Your task to perform on an android device: toggle javascript in the chrome app Image 0: 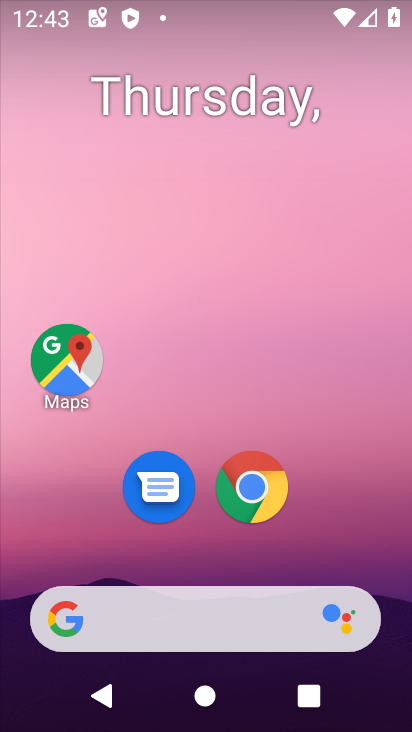
Step 0: drag from (357, 521) to (361, 2)
Your task to perform on an android device: toggle javascript in the chrome app Image 1: 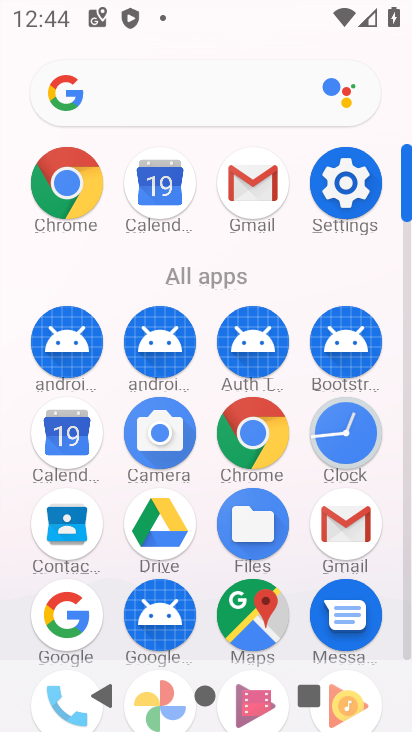
Step 1: click (78, 177)
Your task to perform on an android device: toggle javascript in the chrome app Image 2: 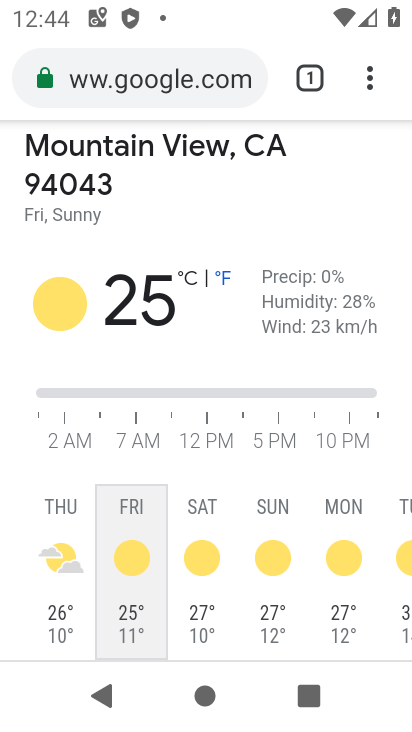
Step 2: click (371, 70)
Your task to perform on an android device: toggle javascript in the chrome app Image 3: 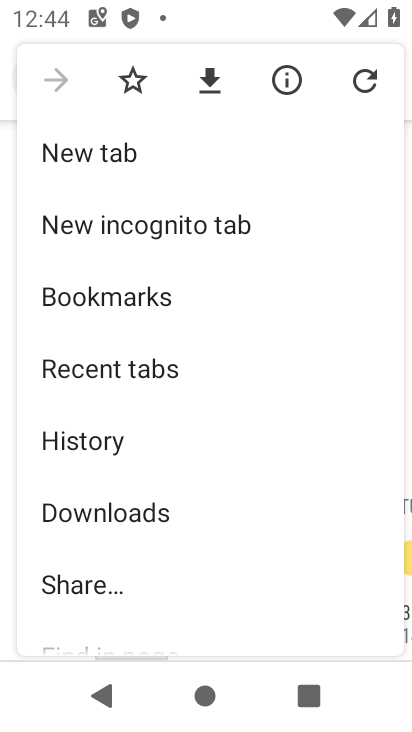
Step 3: drag from (339, 616) to (321, 226)
Your task to perform on an android device: toggle javascript in the chrome app Image 4: 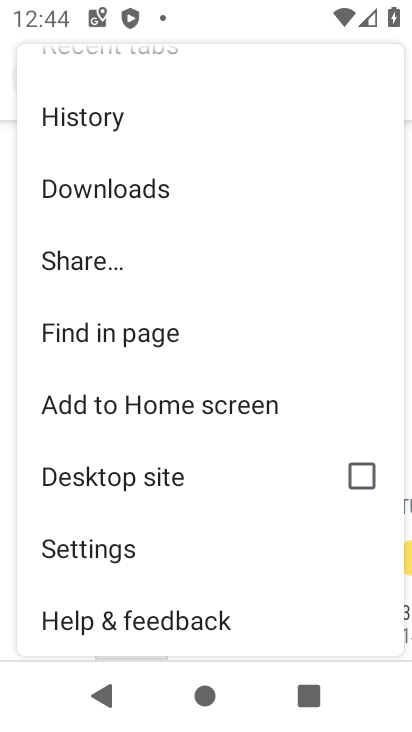
Step 4: click (259, 554)
Your task to perform on an android device: toggle javascript in the chrome app Image 5: 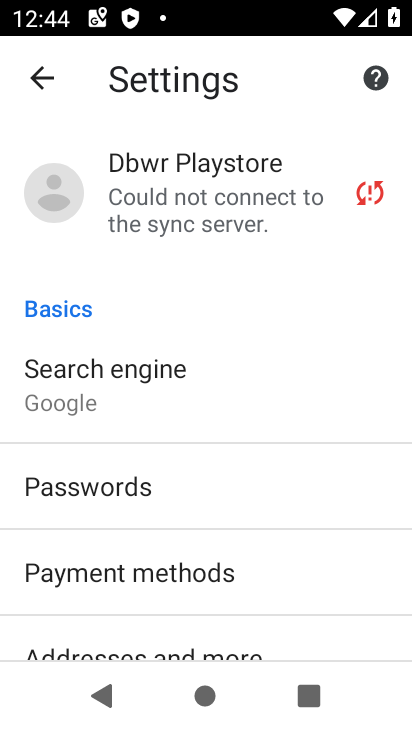
Step 5: drag from (259, 554) to (264, 78)
Your task to perform on an android device: toggle javascript in the chrome app Image 6: 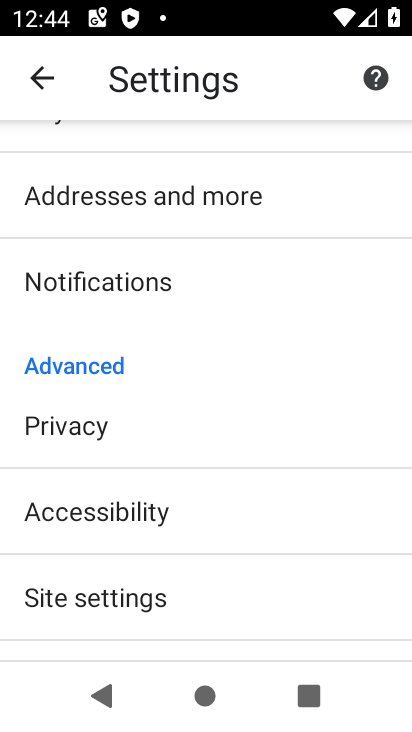
Step 6: click (242, 597)
Your task to perform on an android device: toggle javascript in the chrome app Image 7: 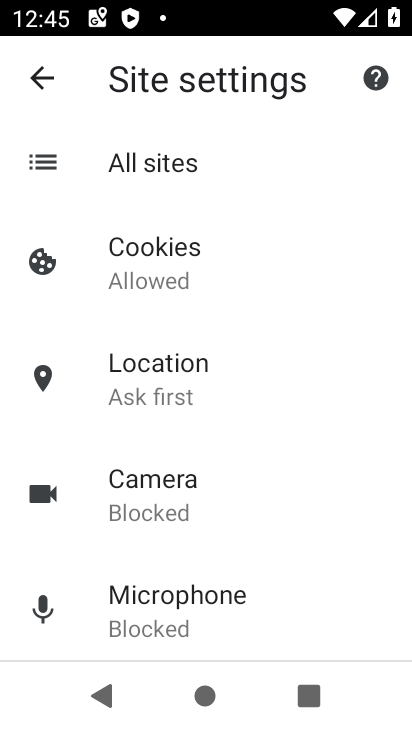
Step 7: drag from (246, 608) to (265, 169)
Your task to perform on an android device: toggle javascript in the chrome app Image 8: 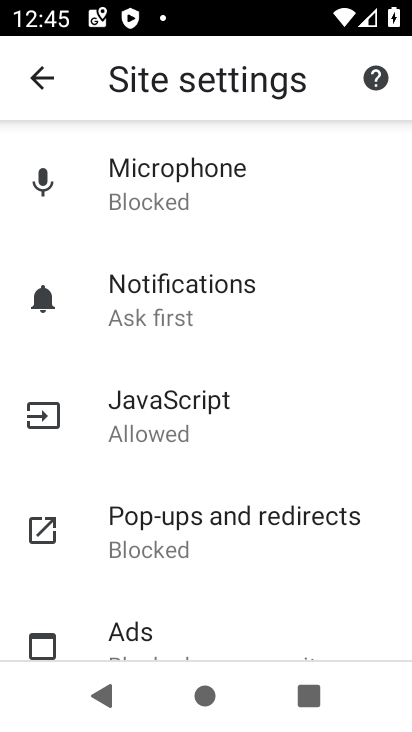
Step 8: click (241, 410)
Your task to perform on an android device: toggle javascript in the chrome app Image 9: 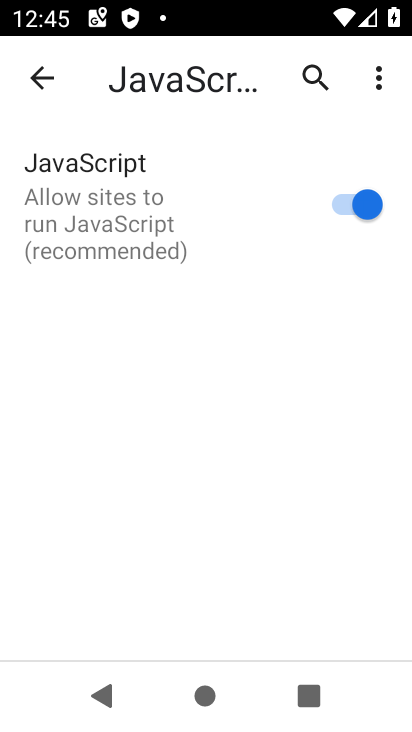
Step 9: click (364, 199)
Your task to perform on an android device: toggle javascript in the chrome app Image 10: 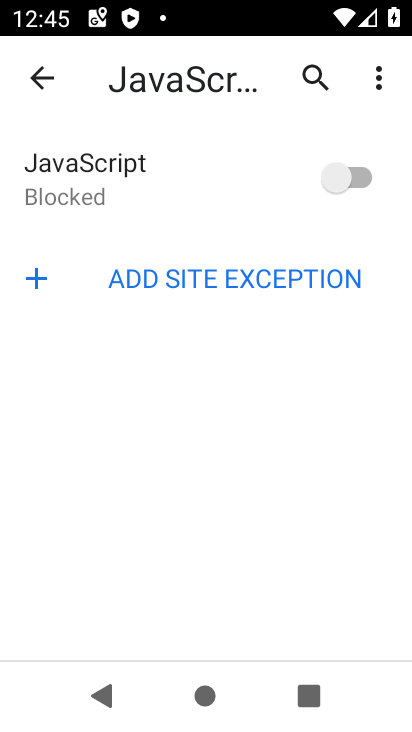
Step 10: task complete